Your task to perform on an android device: find which apps use the phone's location Image 0: 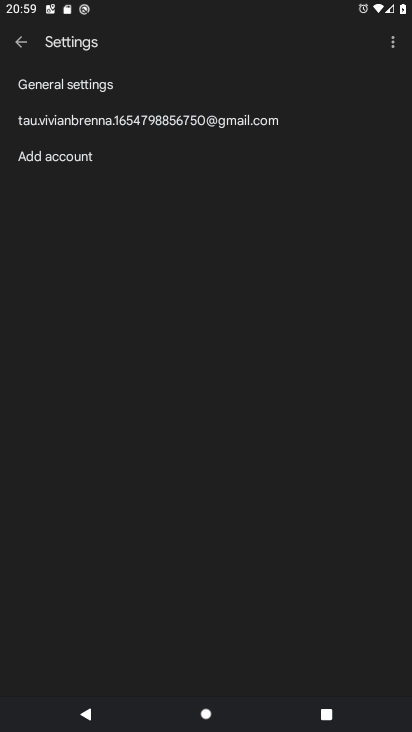
Step 0: press home button
Your task to perform on an android device: find which apps use the phone's location Image 1: 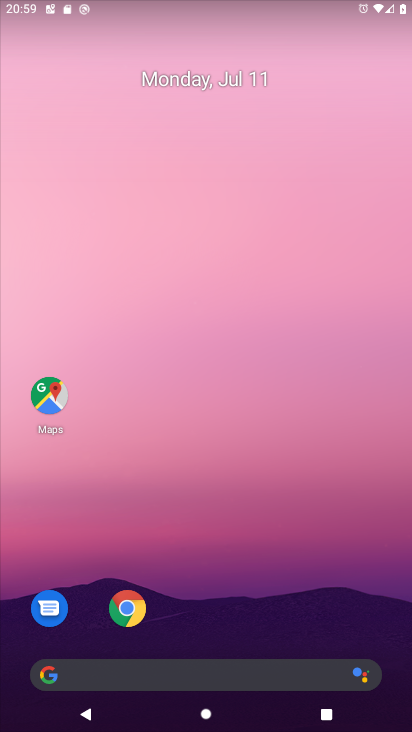
Step 1: drag from (254, 631) to (177, 36)
Your task to perform on an android device: find which apps use the phone's location Image 2: 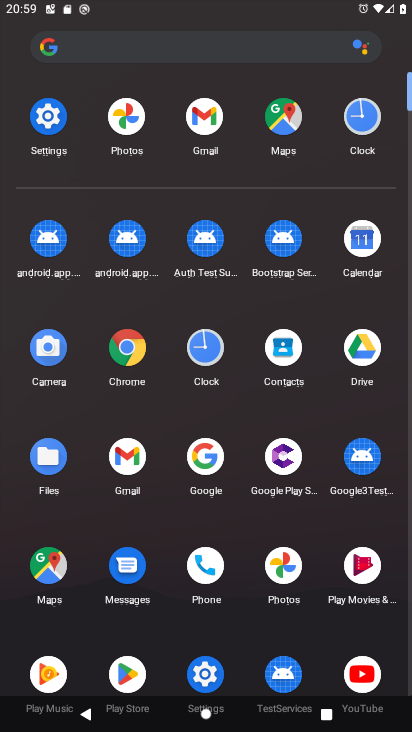
Step 2: click (57, 133)
Your task to perform on an android device: find which apps use the phone's location Image 3: 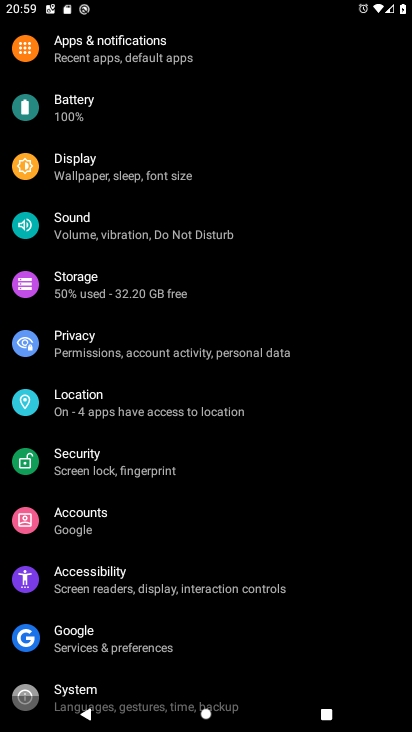
Step 3: press back button
Your task to perform on an android device: find which apps use the phone's location Image 4: 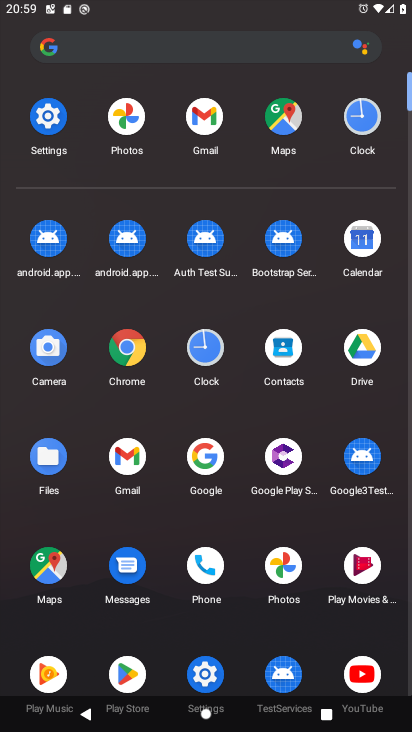
Step 4: drag from (210, 387) to (204, 163)
Your task to perform on an android device: find which apps use the phone's location Image 5: 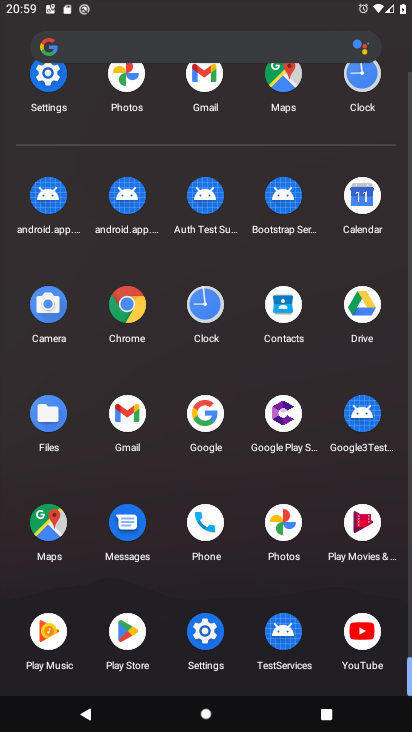
Step 5: click (190, 549)
Your task to perform on an android device: find which apps use the phone's location Image 6: 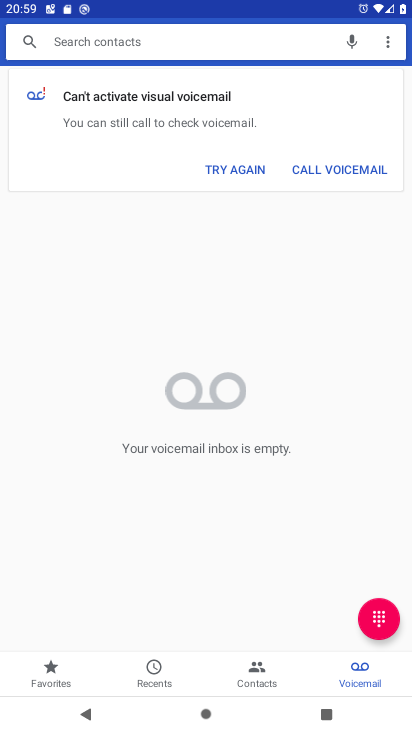
Step 6: task complete